Your task to perform on an android device: delete a single message in the gmail app Image 0: 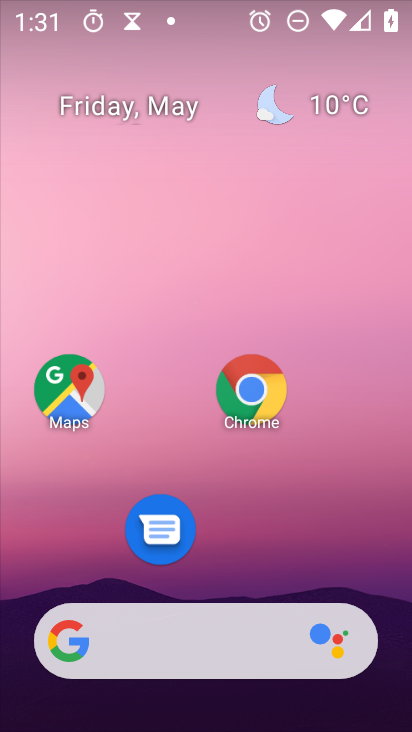
Step 0: press home button
Your task to perform on an android device: delete a single message in the gmail app Image 1: 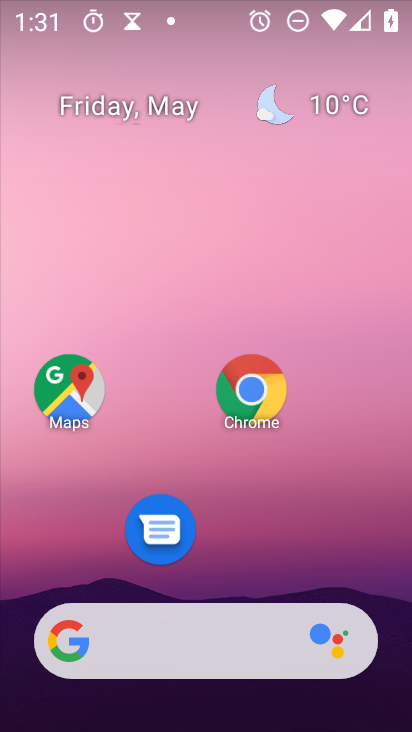
Step 1: drag from (177, 563) to (309, 69)
Your task to perform on an android device: delete a single message in the gmail app Image 2: 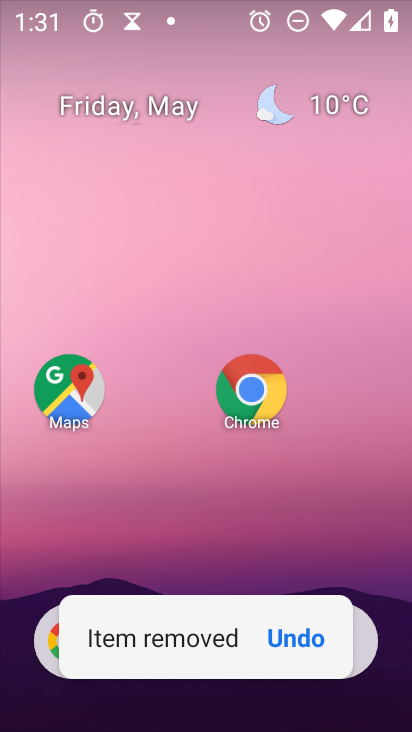
Step 2: click (223, 543)
Your task to perform on an android device: delete a single message in the gmail app Image 3: 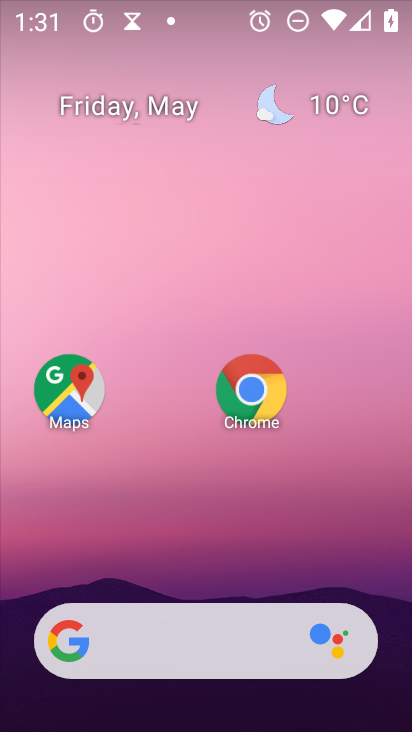
Step 3: drag from (172, 637) to (334, 114)
Your task to perform on an android device: delete a single message in the gmail app Image 4: 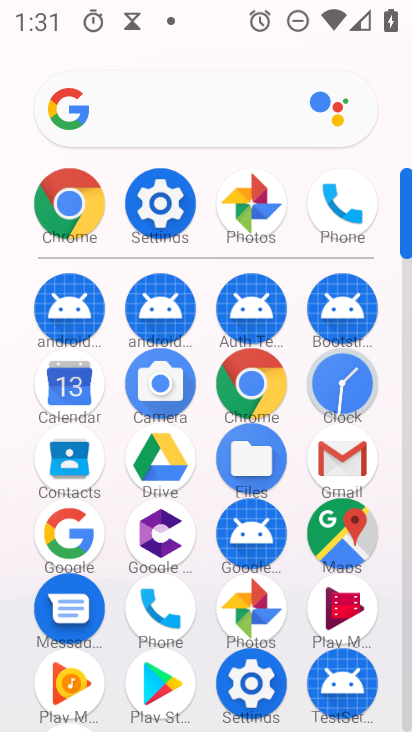
Step 4: click (335, 464)
Your task to perform on an android device: delete a single message in the gmail app Image 5: 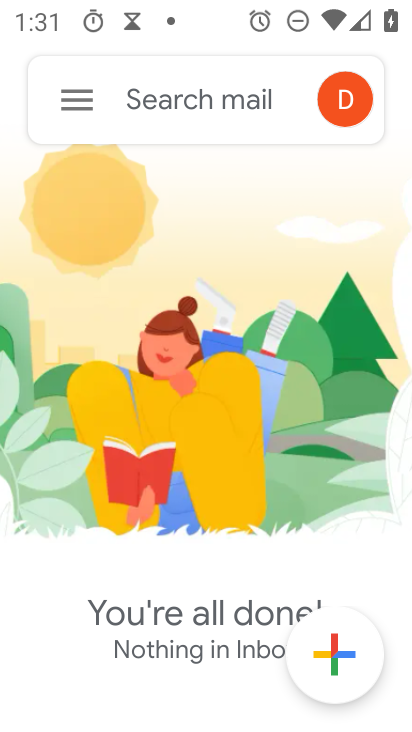
Step 5: task complete